Your task to perform on an android device: Open my contact list Image 0: 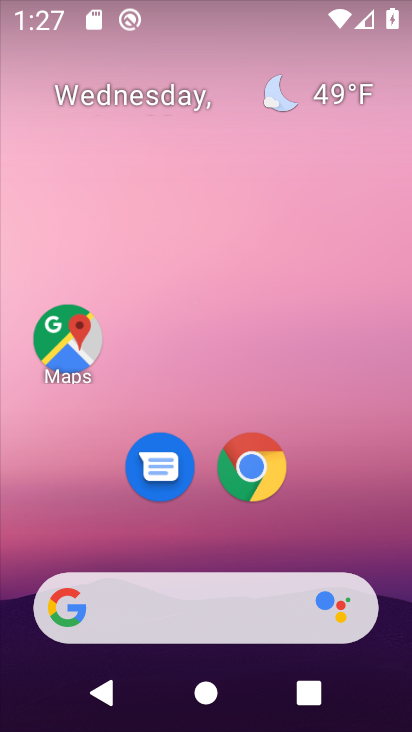
Step 0: drag from (406, 623) to (334, 101)
Your task to perform on an android device: Open my contact list Image 1: 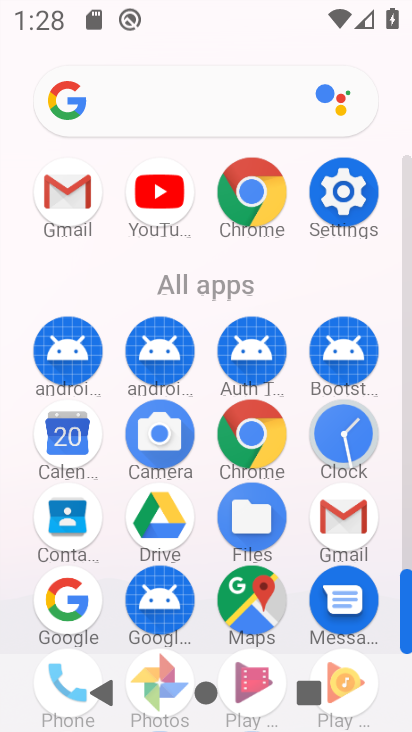
Step 1: click (59, 521)
Your task to perform on an android device: Open my contact list Image 2: 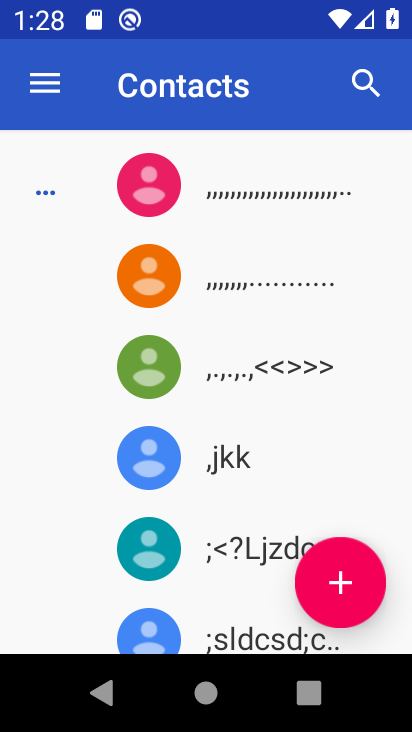
Step 2: task complete